Your task to perform on an android device: Toggle the flashlight Image 0: 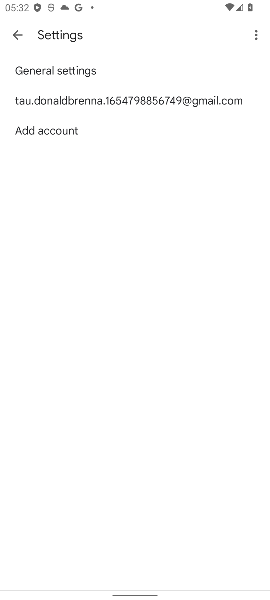
Step 0: press home button
Your task to perform on an android device: Toggle the flashlight Image 1: 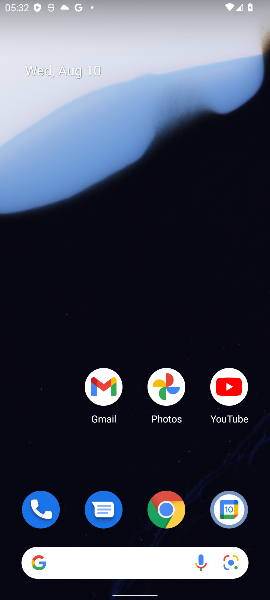
Step 1: drag from (143, 449) to (176, 78)
Your task to perform on an android device: Toggle the flashlight Image 2: 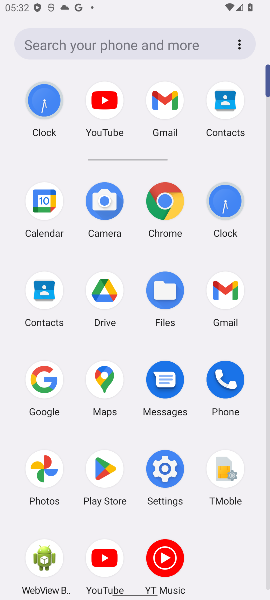
Step 2: click (178, 473)
Your task to perform on an android device: Toggle the flashlight Image 3: 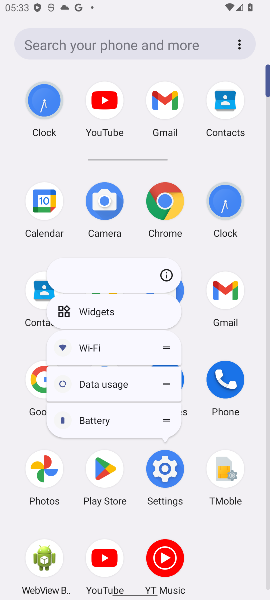
Step 3: click (157, 466)
Your task to perform on an android device: Toggle the flashlight Image 4: 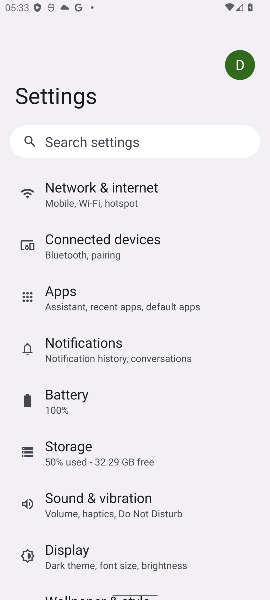
Step 4: click (104, 553)
Your task to perform on an android device: Toggle the flashlight Image 5: 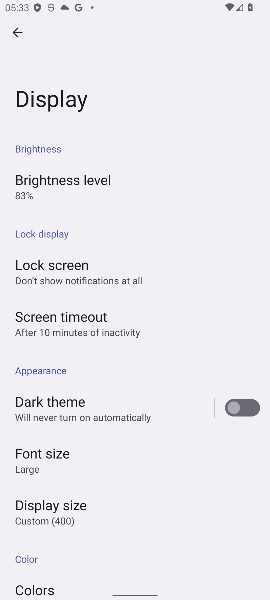
Step 5: click (87, 184)
Your task to perform on an android device: Toggle the flashlight Image 6: 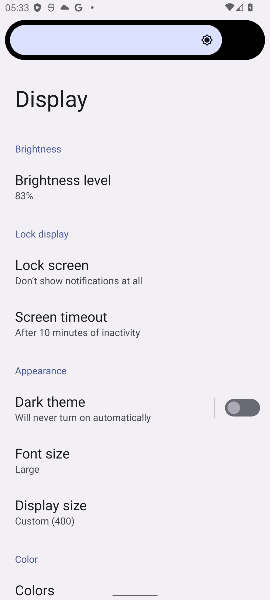
Step 6: task complete